Your task to perform on an android device: turn on showing notifications on the lock screen Image 0: 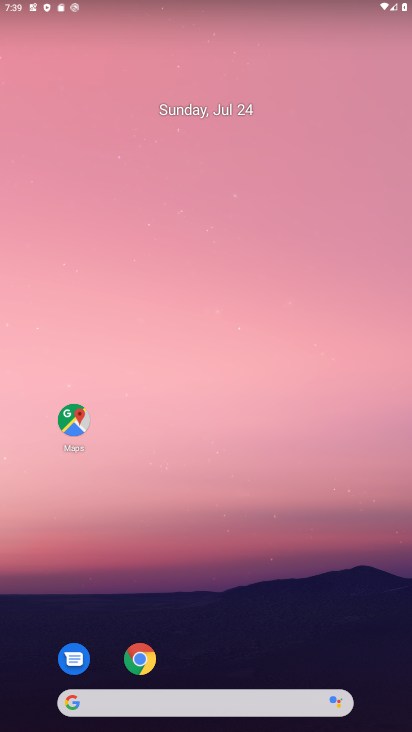
Step 0: drag from (236, 628) to (201, 33)
Your task to perform on an android device: turn on showing notifications on the lock screen Image 1: 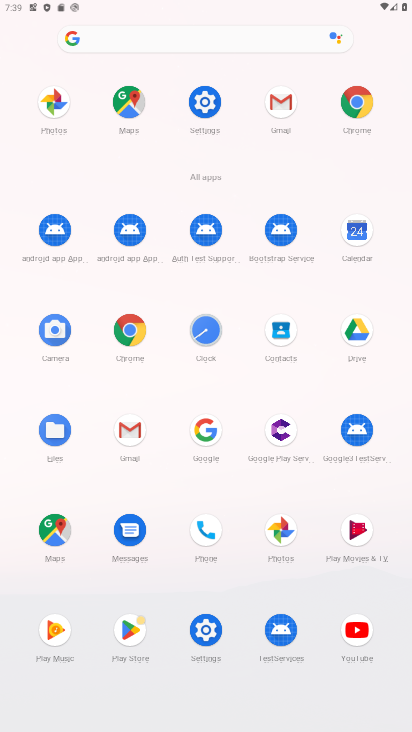
Step 1: click (214, 97)
Your task to perform on an android device: turn on showing notifications on the lock screen Image 2: 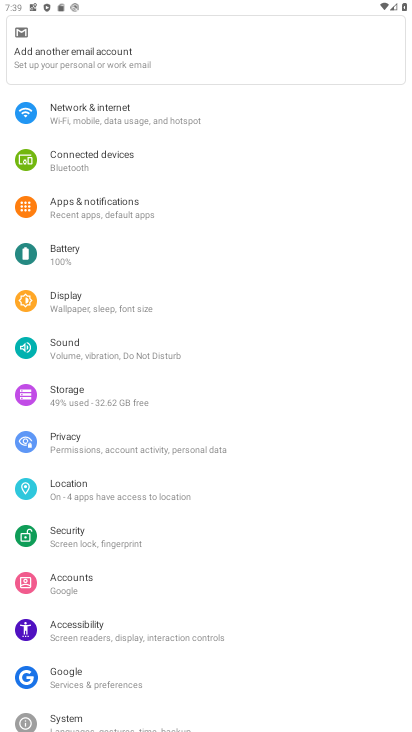
Step 2: click (83, 209)
Your task to perform on an android device: turn on showing notifications on the lock screen Image 3: 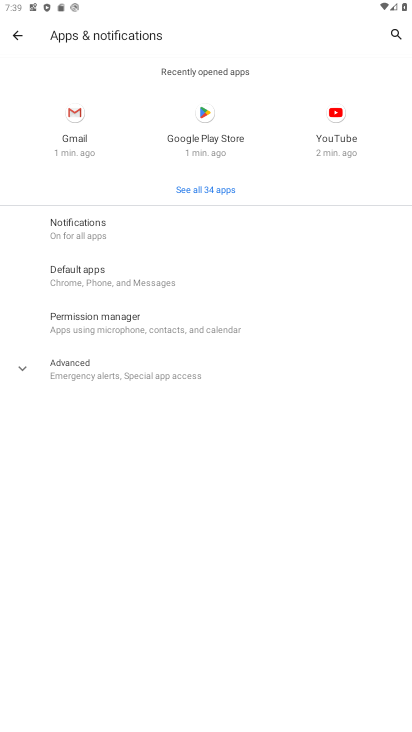
Step 3: click (80, 235)
Your task to perform on an android device: turn on showing notifications on the lock screen Image 4: 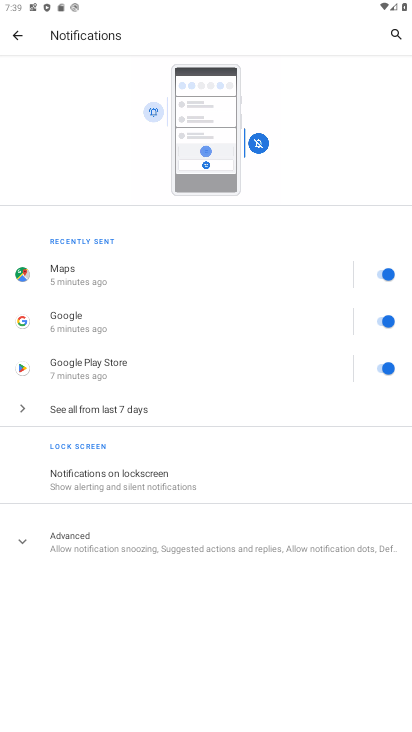
Step 4: click (184, 476)
Your task to perform on an android device: turn on showing notifications on the lock screen Image 5: 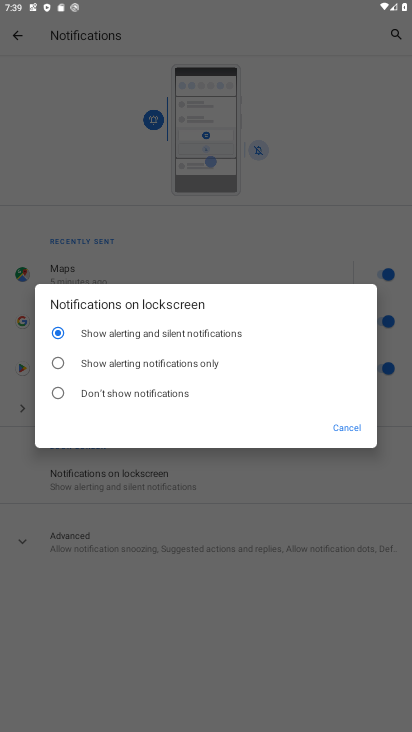
Step 5: click (136, 367)
Your task to perform on an android device: turn on showing notifications on the lock screen Image 6: 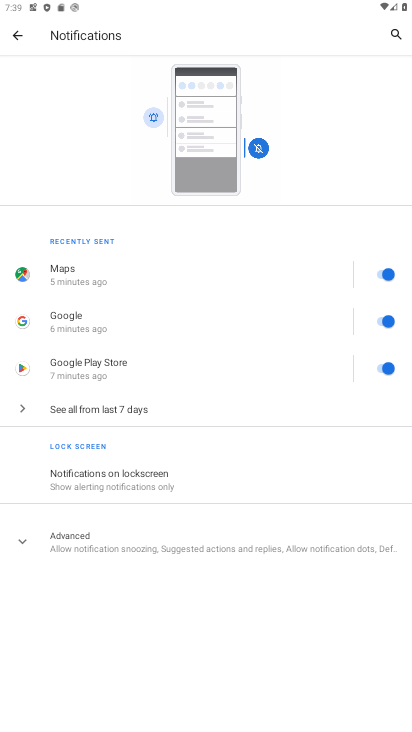
Step 6: task complete